Your task to perform on an android device: toggle priority inbox in the gmail app Image 0: 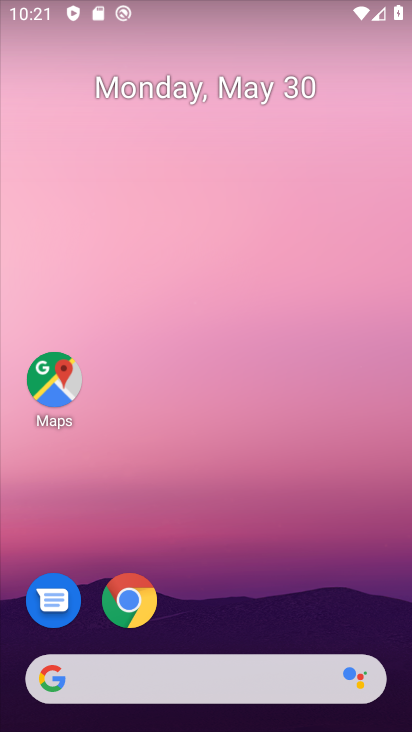
Step 0: drag from (269, 575) to (303, 86)
Your task to perform on an android device: toggle priority inbox in the gmail app Image 1: 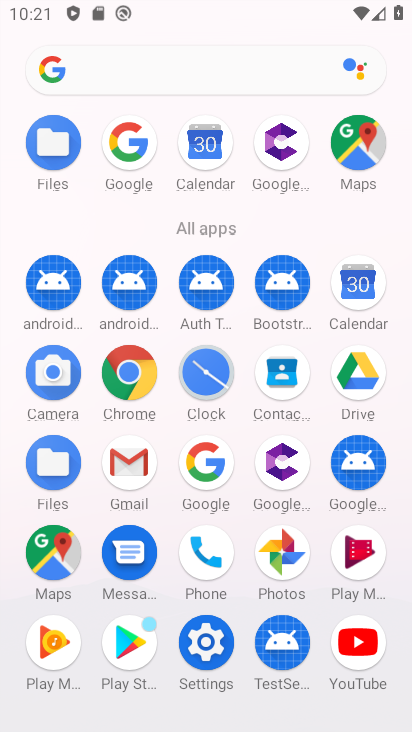
Step 1: click (132, 459)
Your task to perform on an android device: toggle priority inbox in the gmail app Image 2: 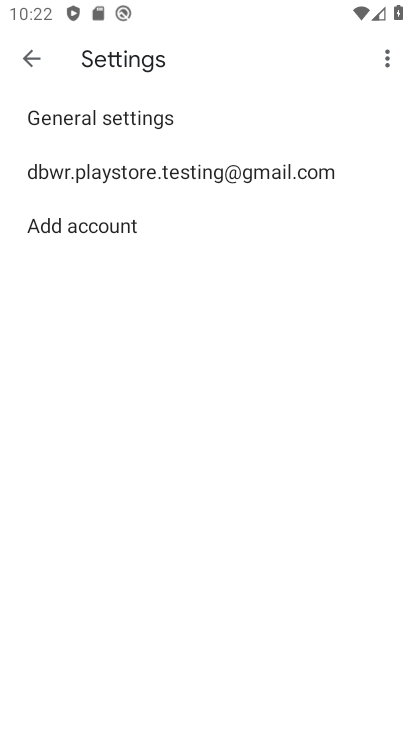
Step 2: click (102, 163)
Your task to perform on an android device: toggle priority inbox in the gmail app Image 3: 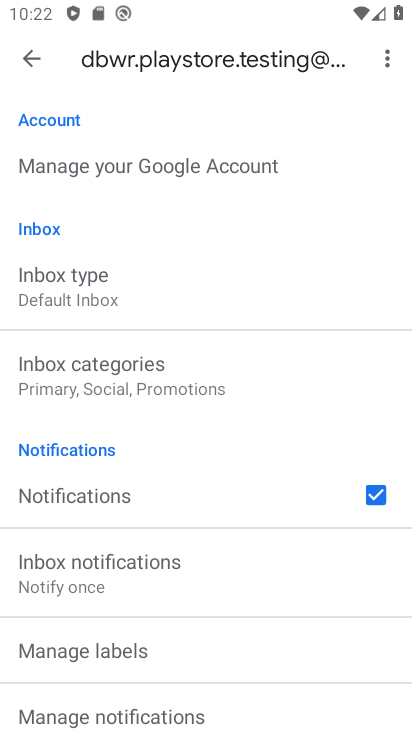
Step 3: click (99, 299)
Your task to perform on an android device: toggle priority inbox in the gmail app Image 4: 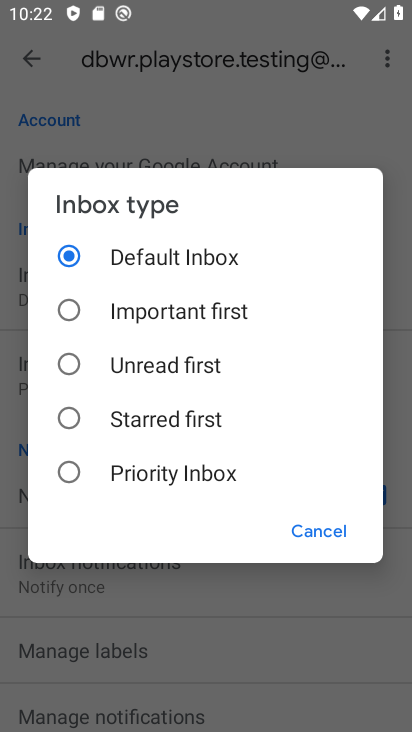
Step 4: click (156, 464)
Your task to perform on an android device: toggle priority inbox in the gmail app Image 5: 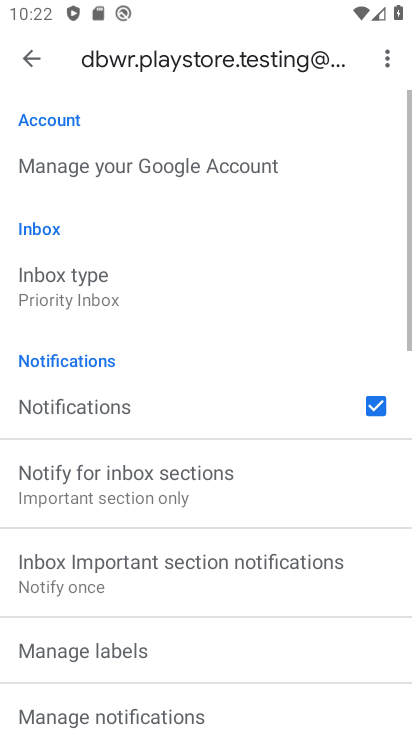
Step 5: task complete